Your task to perform on an android device: turn on the 12-hour format for clock Image 0: 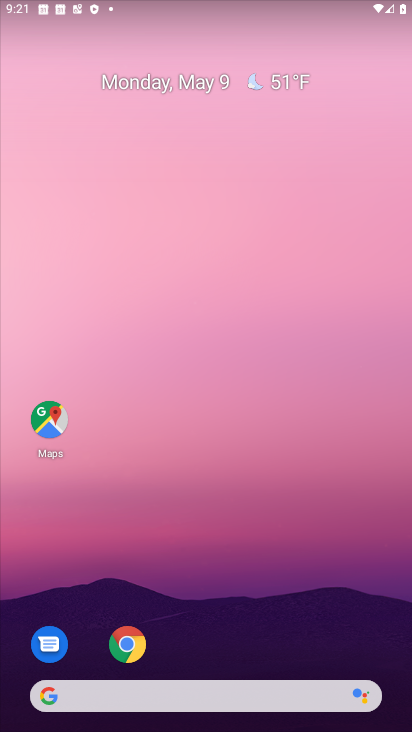
Step 0: drag from (190, 682) to (165, 0)
Your task to perform on an android device: turn on the 12-hour format for clock Image 1: 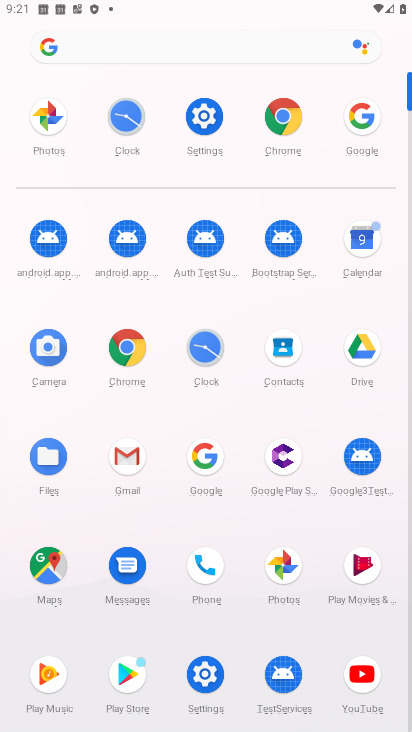
Step 1: click (209, 352)
Your task to perform on an android device: turn on the 12-hour format for clock Image 2: 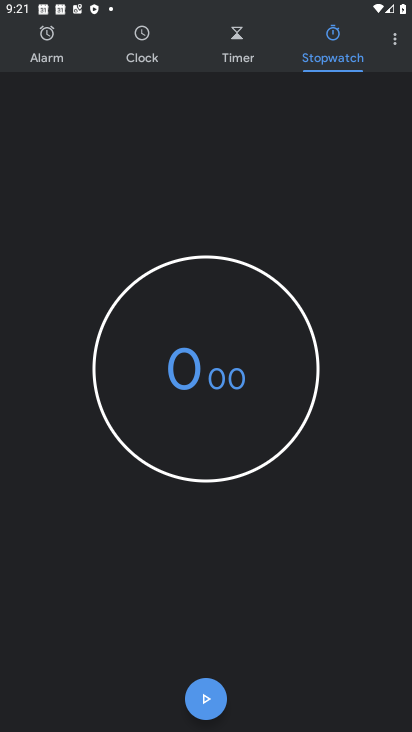
Step 2: click (404, 40)
Your task to perform on an android device: turn on the 12-hour format for clock Image 3: 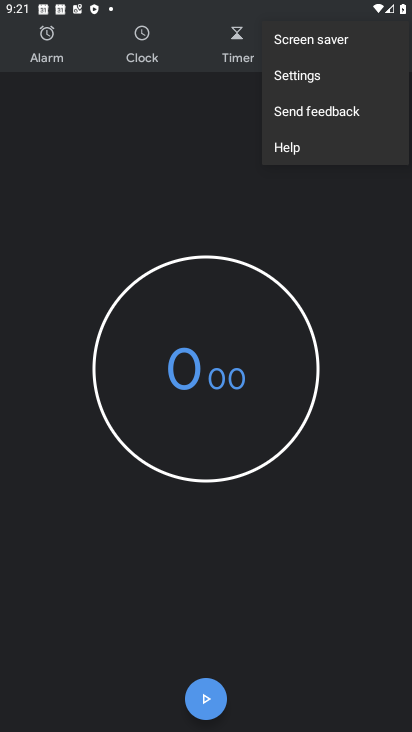
Step 3: click (336, 67)
Your task to perform on an android device: turn on the 12-hour format for clock Image 4: 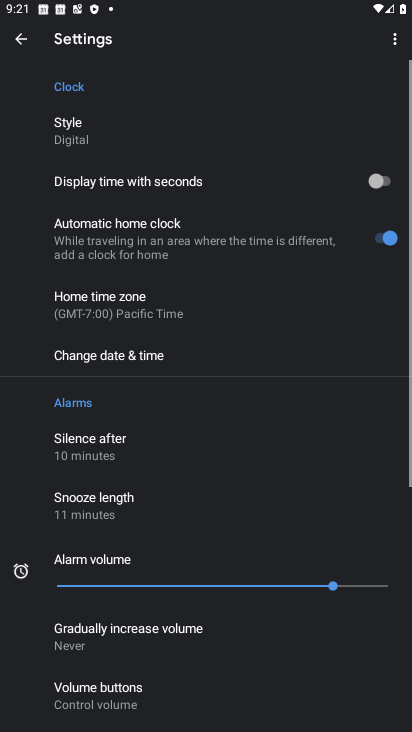
Step 4: click (104, 369)
Your task to perform on an android device: turn on the 12-hour format for clock Image 5: 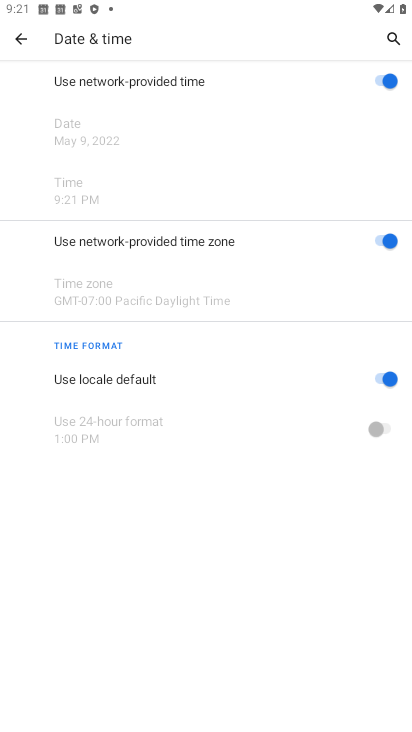
Step 5: task complete